Your task to perform on an android device: Open settings Image 0: 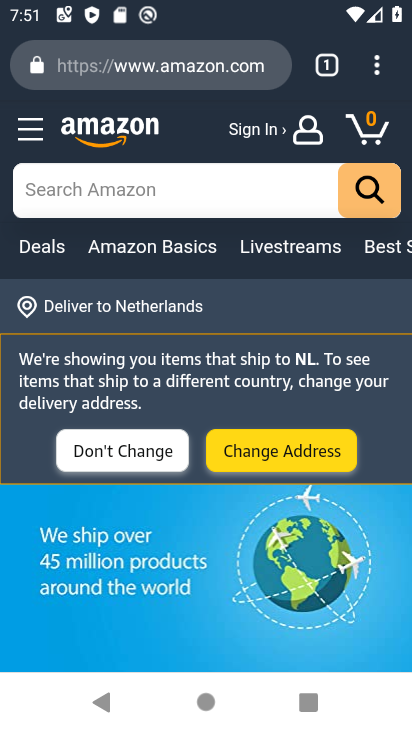
Step 0: press home button
Your task to perform on an android device: Open settings Image 1: 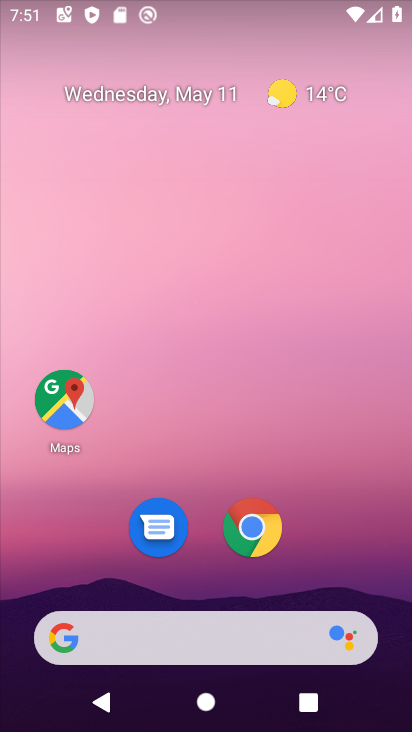
Step 1: drag from (296, 567) to (399, 30)
Your task to perform on an android device: Open settings Image 2: 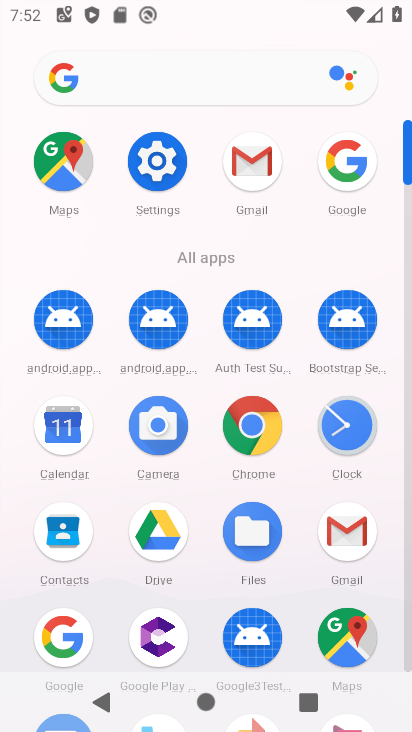
Step 2: click (170, 185)
Your task to perform on an android device: Open settings Image 3: 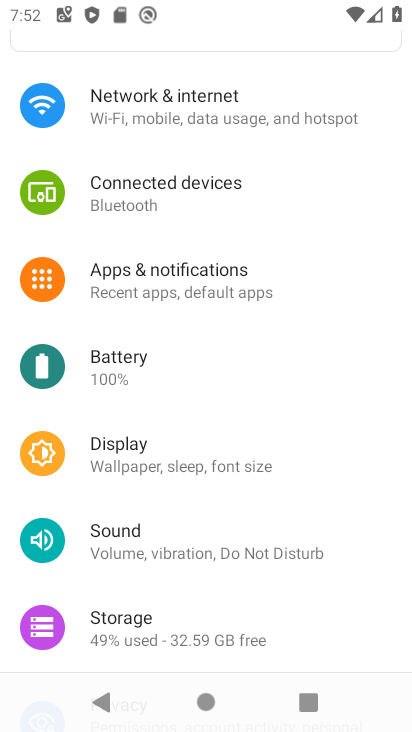
Step 3: task complete